Your task to perform on an android device: Is it going to rain tomorrow? Image 0: 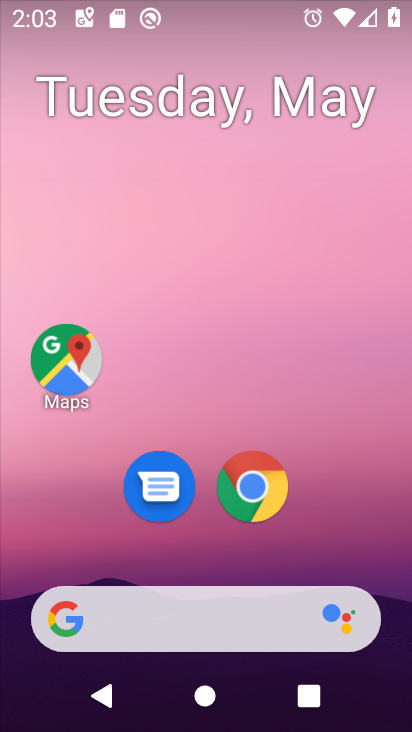
Step 0: click (192, 627)
Your task to perform on an android device: Is it going to rain tomorrow? Image 1: 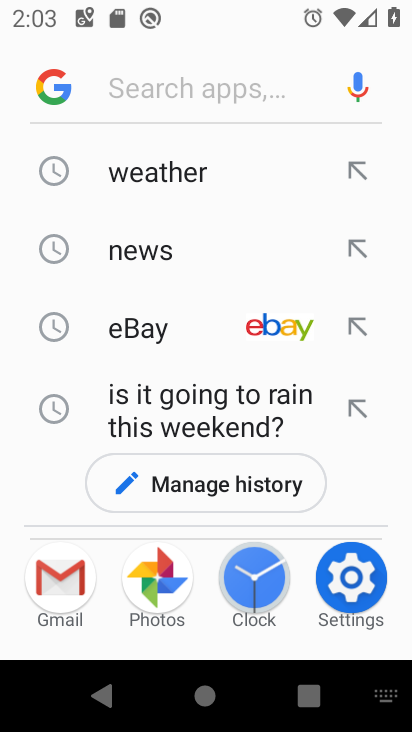
Step 1: click (143, 185)
Your task to perform on an android device: Is it going to rain tomorrow? Image 2: 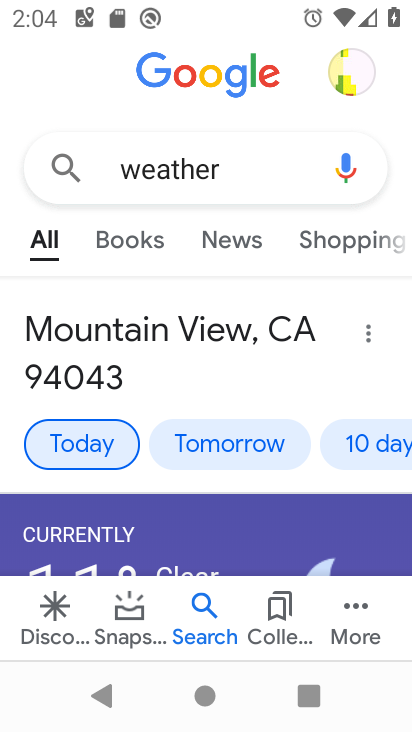
Step 2: click (187, 456)
Your task to perform on an android device: Is it going to rain tomorrow? Image 3: 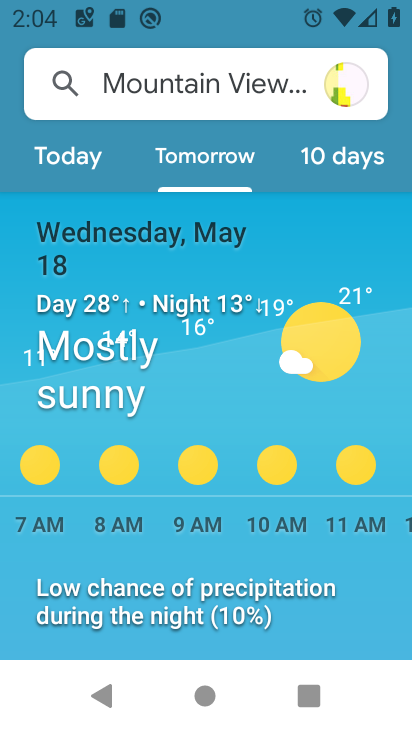
Step 3: task complete